Your task to perform on an android device: Open Youtube and go to the subscriptions tab Image 0: 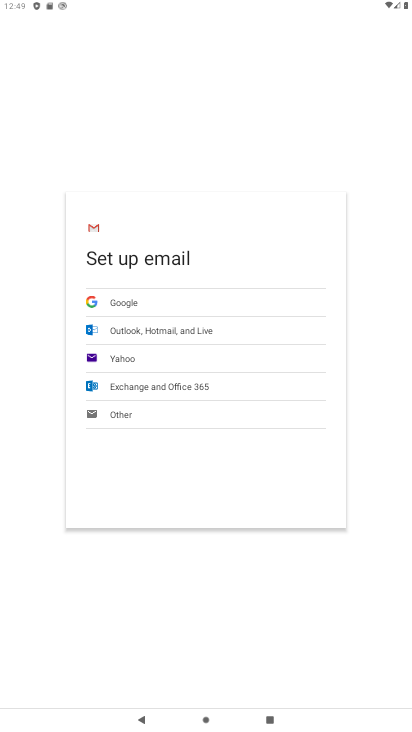
Step 0: press home button
Your task to perform on an android device: Open Youtube and go to the subscriptions tab Image 1: 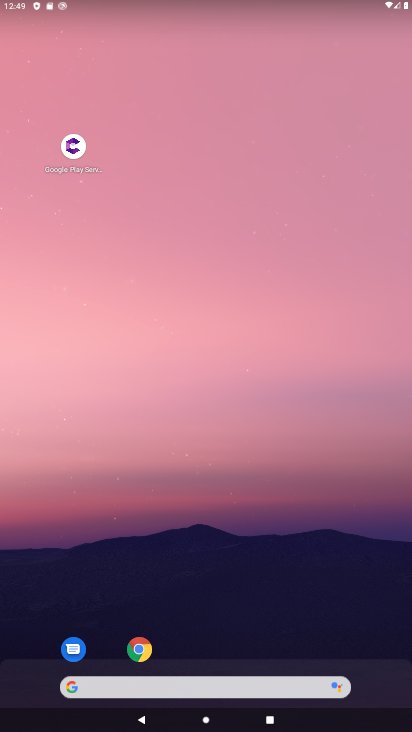
Step 1: drag from (276, 608) to (238, 133)
Your task to perform on an android device: Open Youtube and go to the subscriptions tab Image 2: 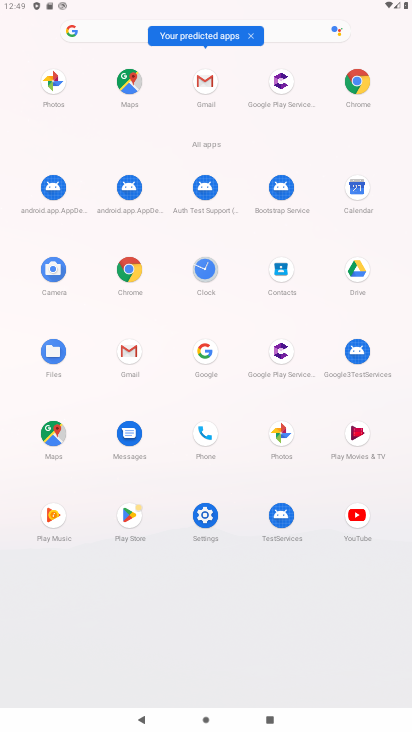
Step 2: click (357, 517)
Your task to perform on an android device: Open Youtube and go to the subscriptions tab Image 3: 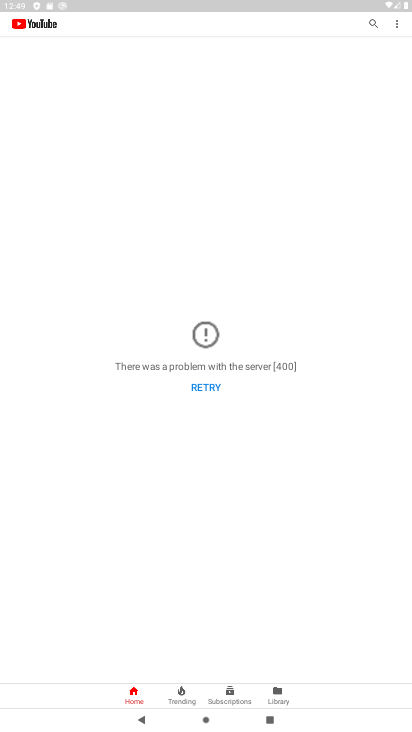
Step 3: click (228, 695)
Your task to perform on an android device: Open Youtube and go to the subscriptions tab Image 4: 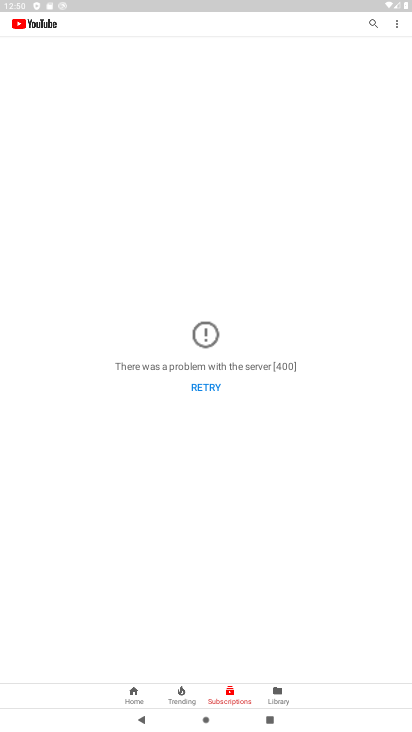
Step 4: task complete